Your task to perform on an android device: visit the assistant section in the google photos Image 0: 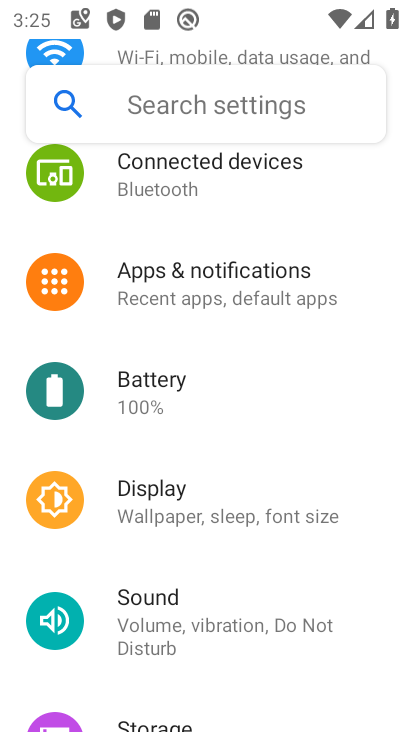
Step 0: press home button
Your task to perform on an android device: visit the assistant section in the google photos Image 1: 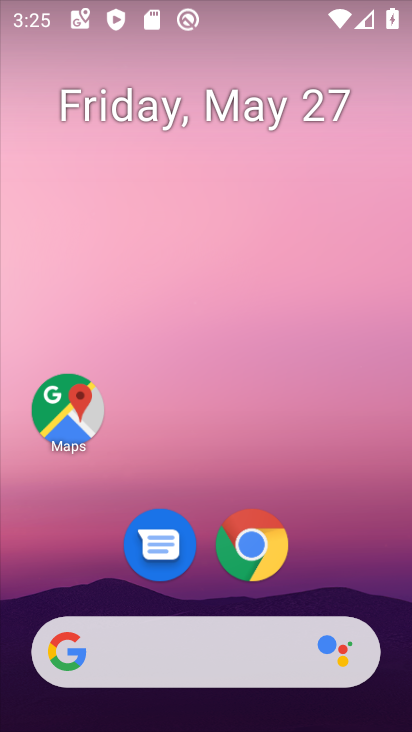
Step 1: drag from (223, 667) to (293, 207)
Your task to perform on an android device: visit the assistant section in the google photos Image 2: 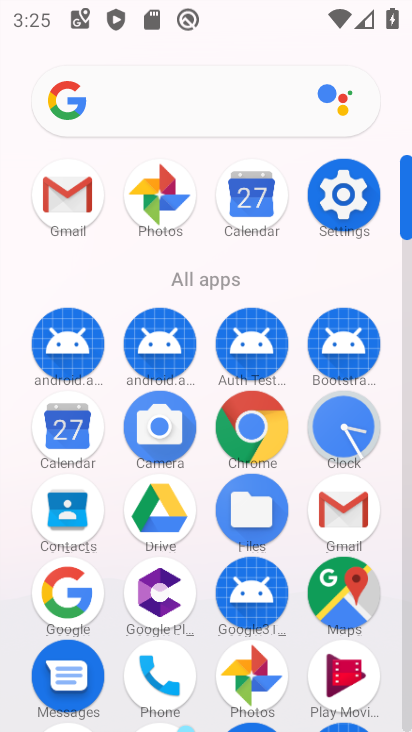
Step 2: drag from (201, 608) to (252, 251)
Your task to perform on an android device: visit the assistant section in the google photos Image 3: 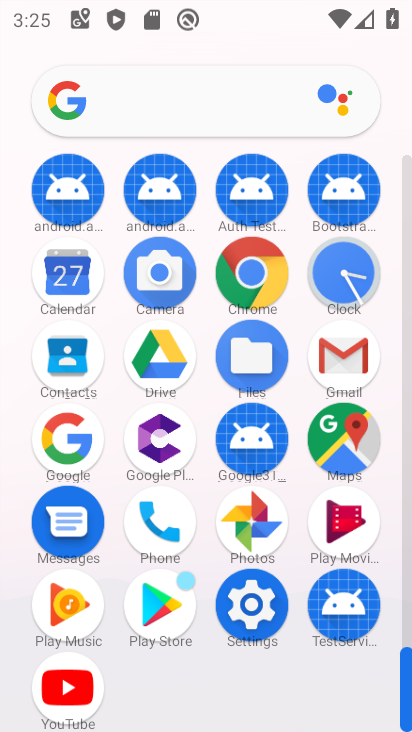
Step 3: click (245, 529)
Your task to perform on an android device: visit the assistant section in the google photos Image 4: 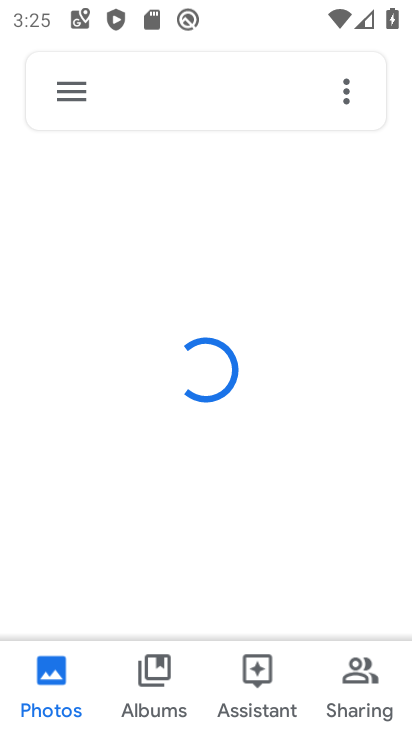
Step 4: click (256, 680)
Your task to perform on an android device: visit the assistant section in the google photos Image 5: 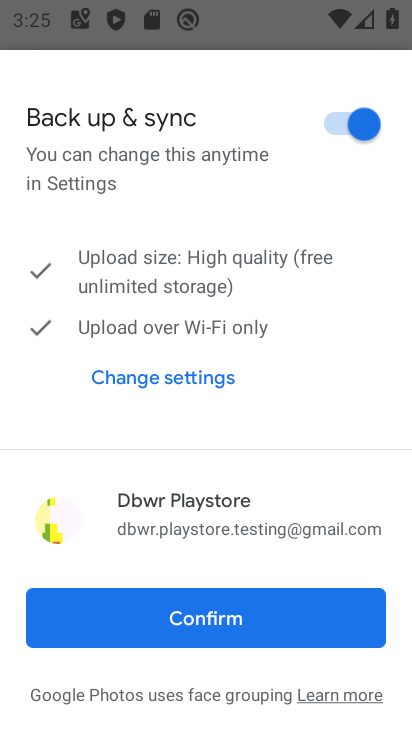
Step 5: click (221, 611)
Your task to perform on an android device: visit the assistant section in the google photos Image 6: 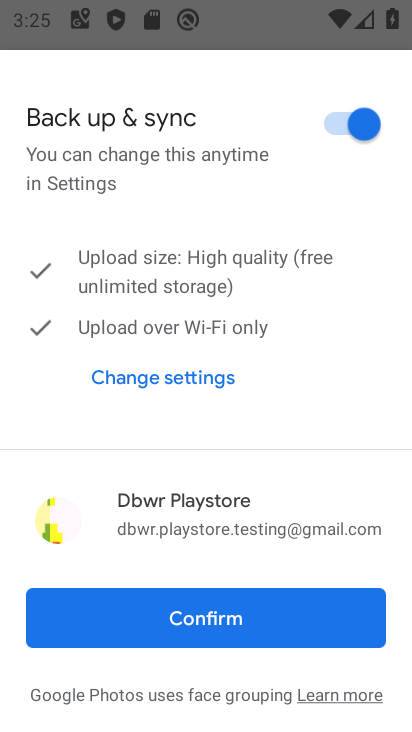
Step 6: click (209, 624)
Your task to perform on an android device: visit the assistant section in the google photos Image 7: 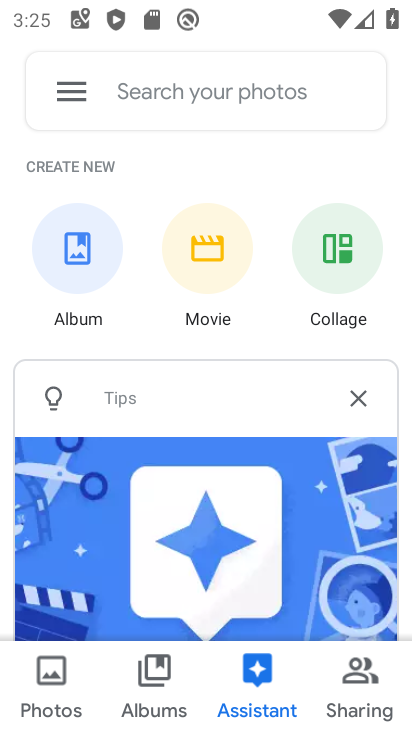
Step 7: task complete